Your task to perform on an android device: see tabs open on other devices in the chrome app Image 0: 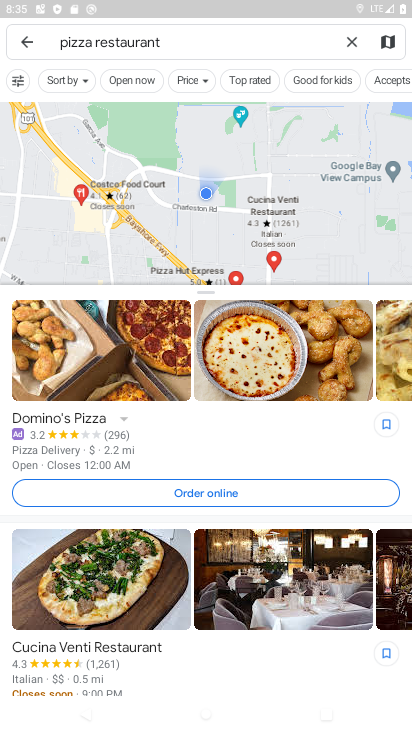
Step 0: press home button
Your task to perform on an android device: see tabs open on other devices in the chrome app Image 1: 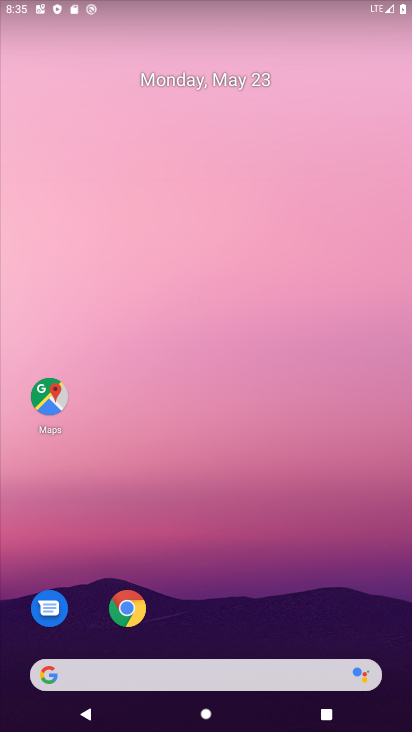
Step 1: click (136, 620)
Your task to perform on an android device: see tabs open on other devices in the chrome app Image 2: 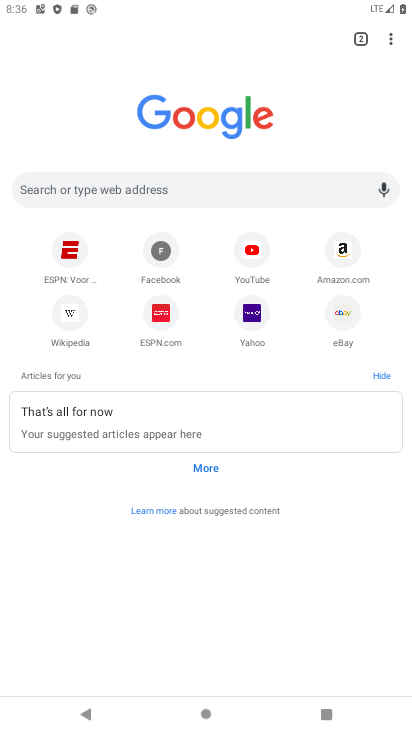
Step 2: task complete